Your task to perform on an android device: Open calendar and show me the third week of next month Image 0: 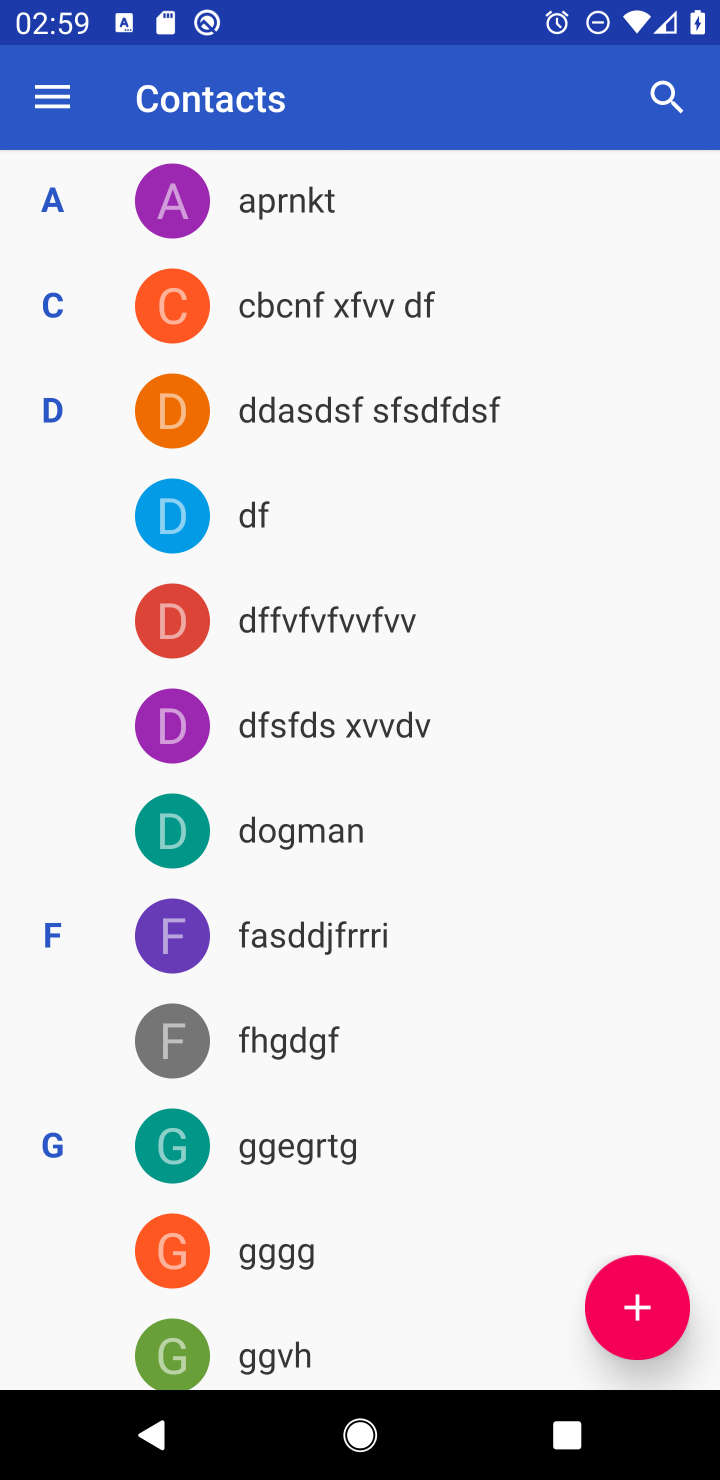
Step 0: press home button
Your task to perform on an android device: Open calendar and show me the third week of next month Image 1: 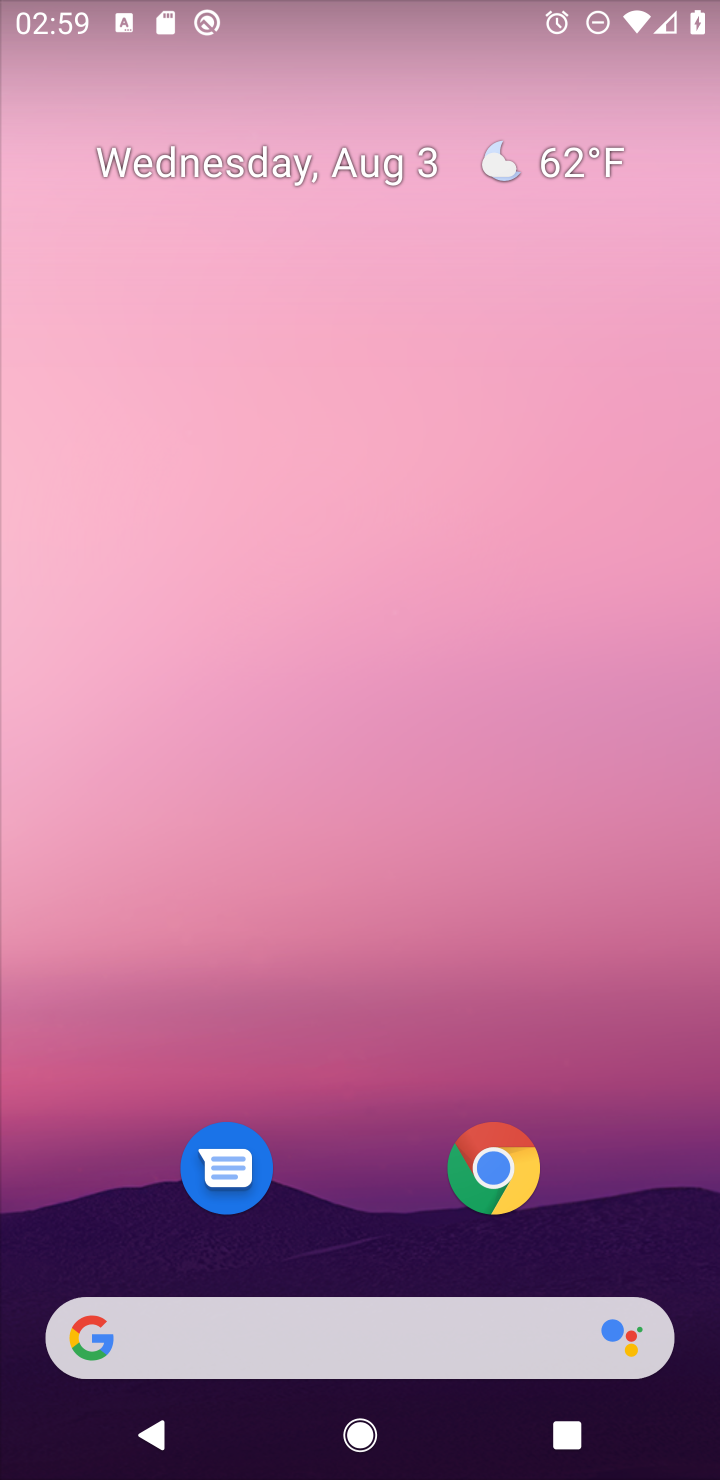
Step 1: drag from (642, 937) to (586, 305)
Your task to perform on an android device: Open calendar and show me the third week of next month Image 2: 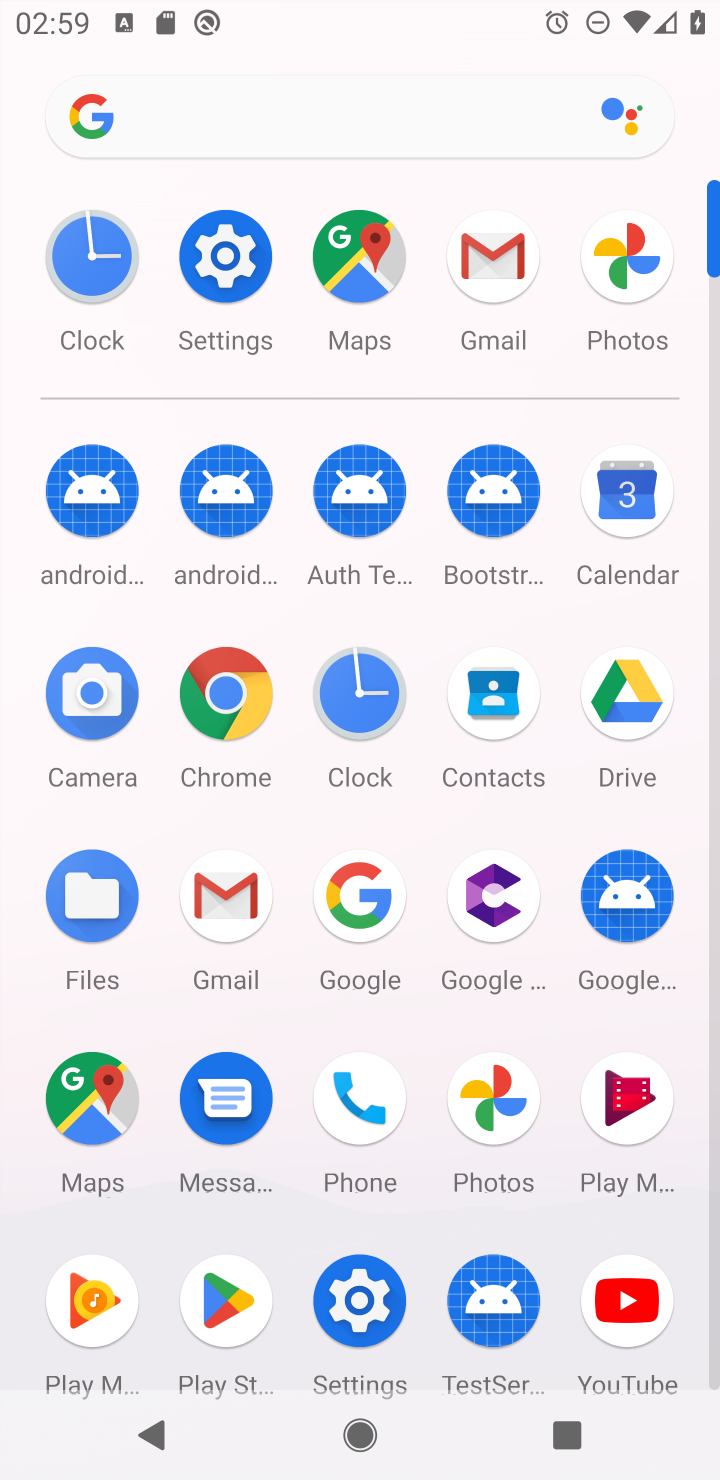
Step 2: click (625, 498)
Your task to perform on an android device: Open calendar and show me the third week of next month Image 3: 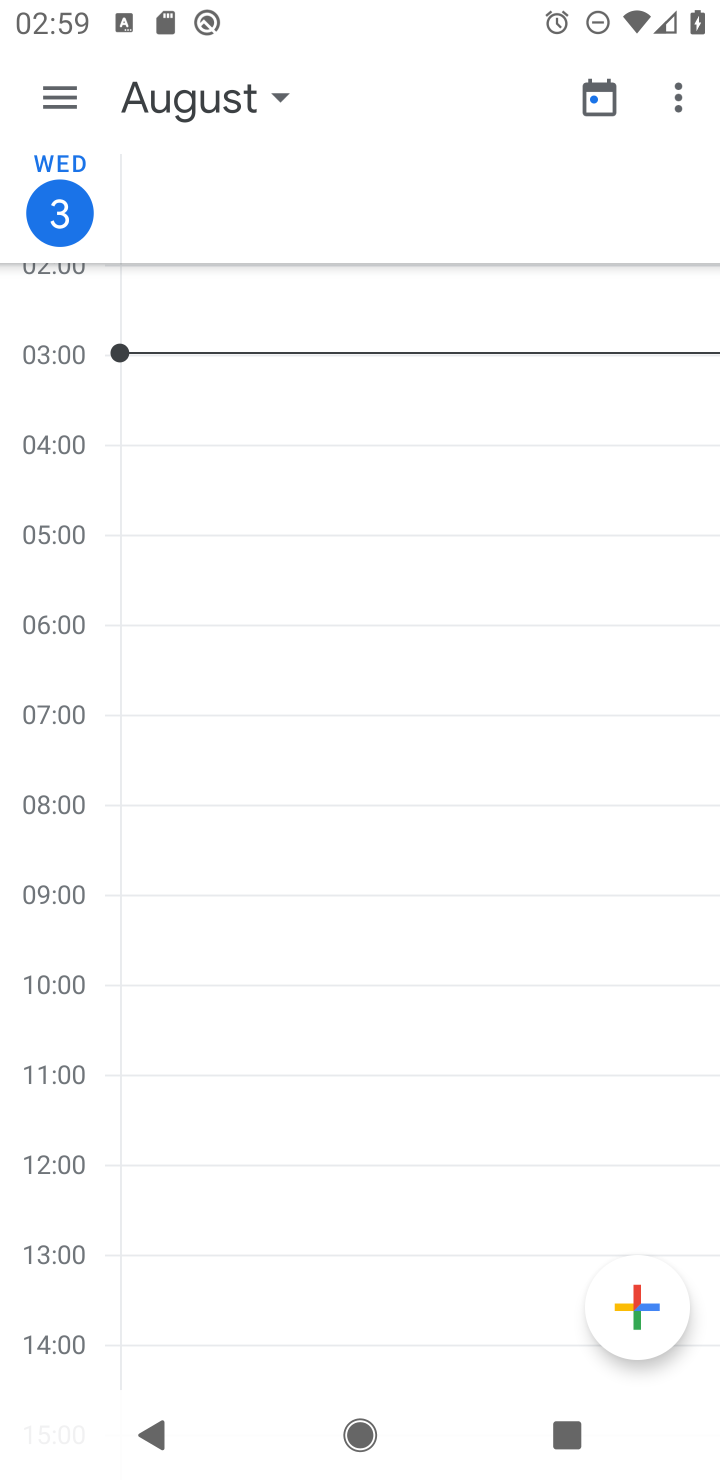
Step 3: click (58, 98)
Your task to perform on an android device: Open calendar and show me the third week of next month Image 4: 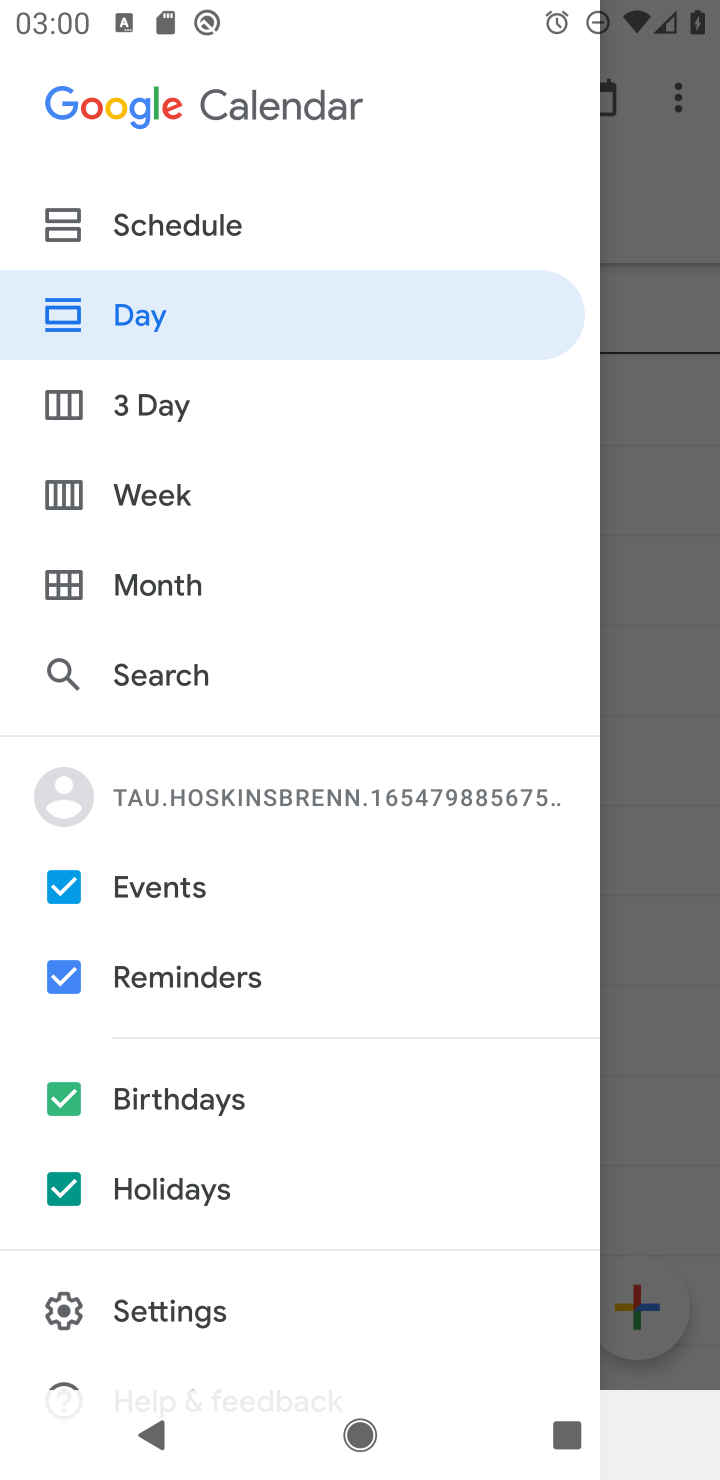
Step 4: click (164, 492)
Your task to perform on an android device: Open calendar and show me the third week of next month Image 5: 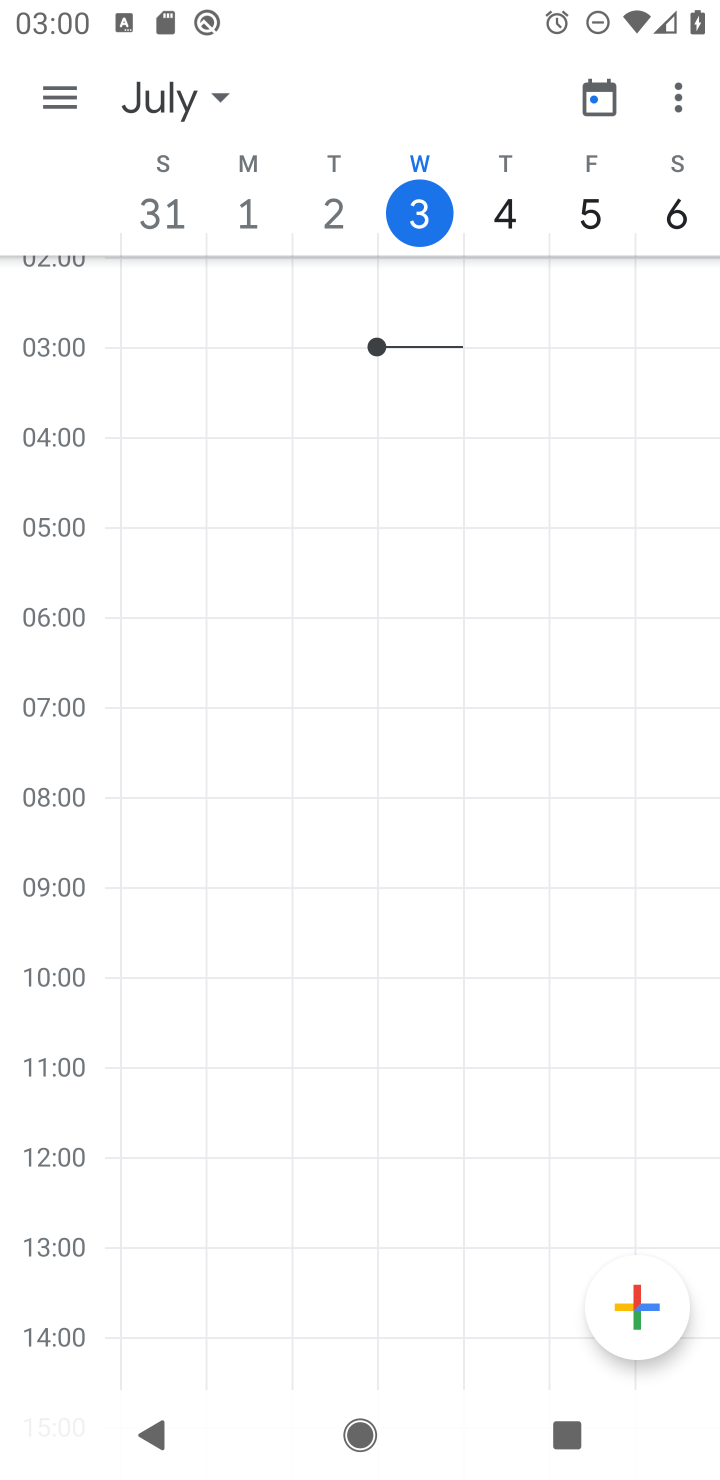
Step 5: click (223, 98)
Your task to perform on an android device: Open calendar and show me the third week of next month Image 6: 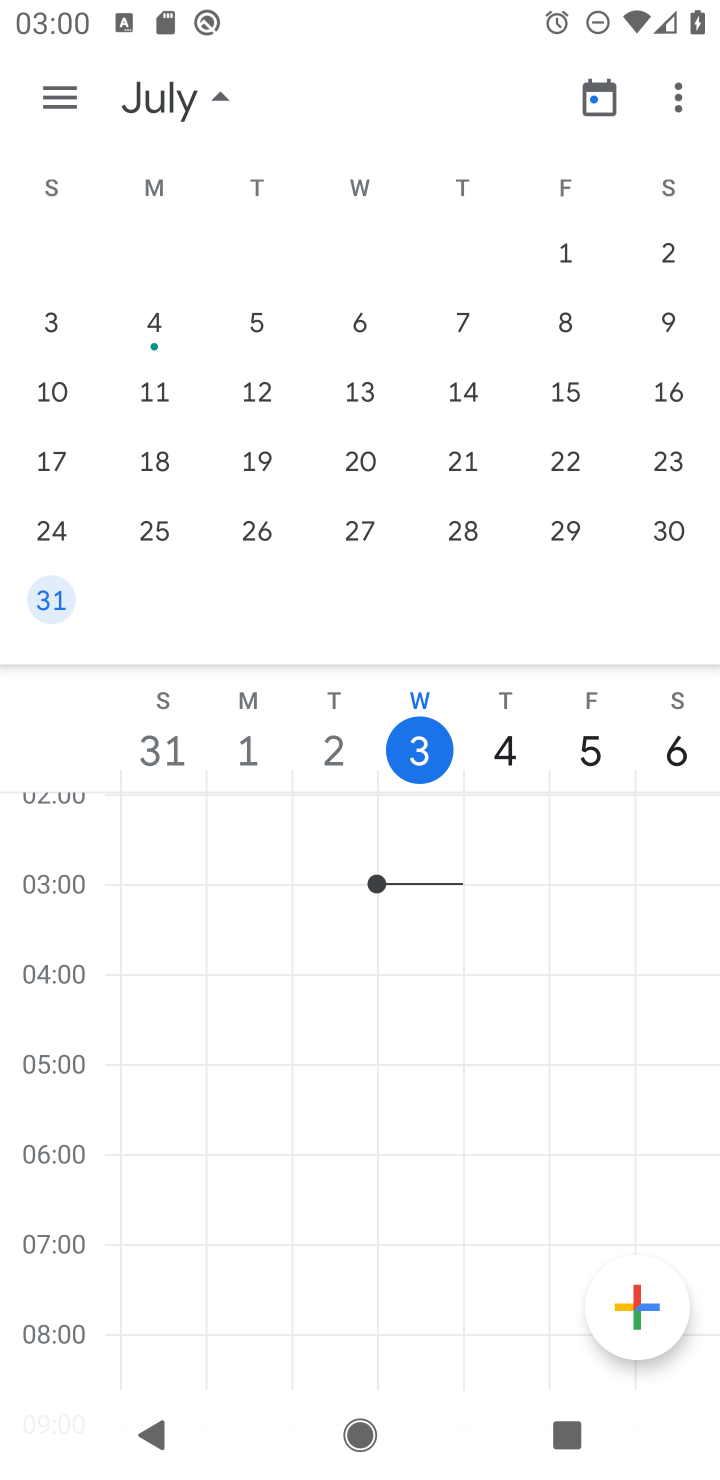
Step 6: drag from (674, 443) to (64, 491)
Your task to perform on an android device: Open calendar and show me the third week of next month Image 7: 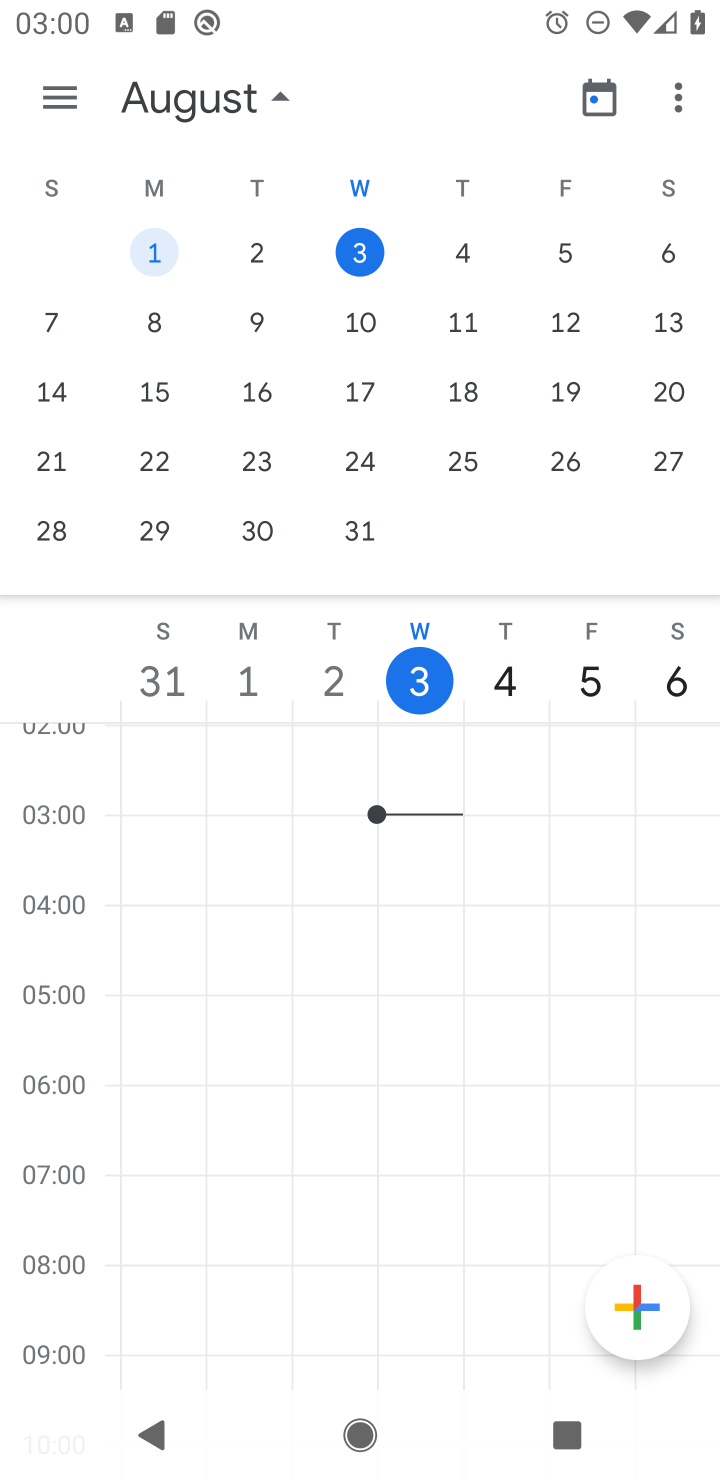
Step 7: click (59, 462)
Your task to perform on an android device: Open calendar and show me the third week of next month Image 8: 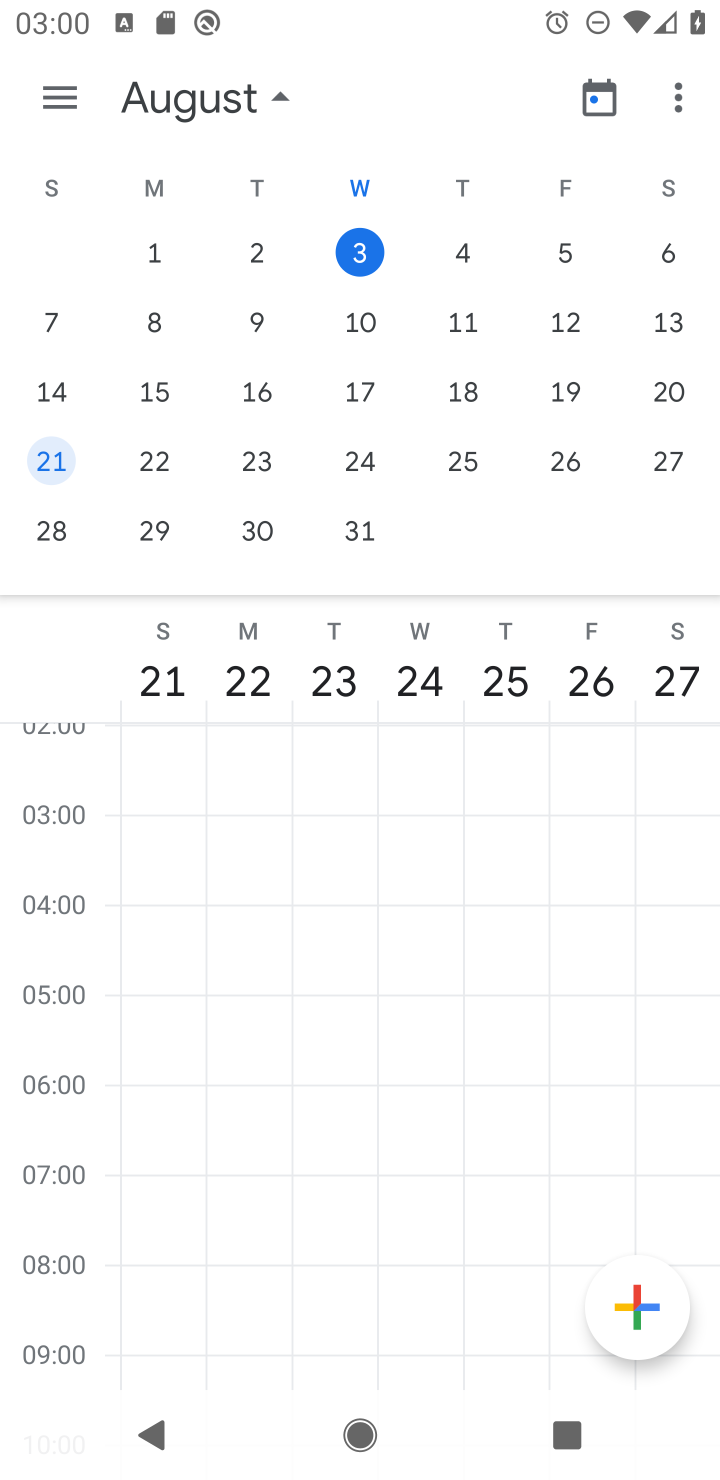
Step 8: task complete